Your task to perform on an android device: Open Chrome and go to settings Image 0: 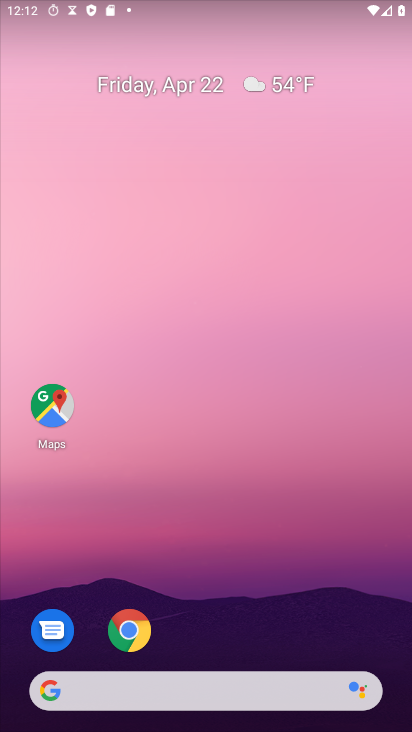
Step 0: click (119, 633)
Your task to perform on an android device: Open Chrome and go to settings Image 1: 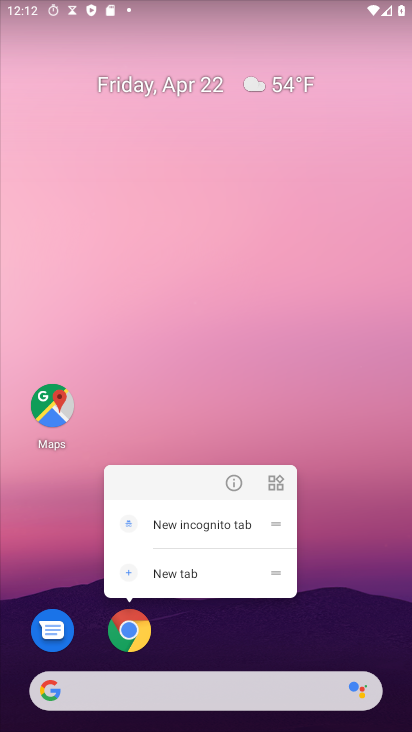
Step 1: click (123, 631)
Your task to perform on an android device: Open Chrome and go to settings Image 2: 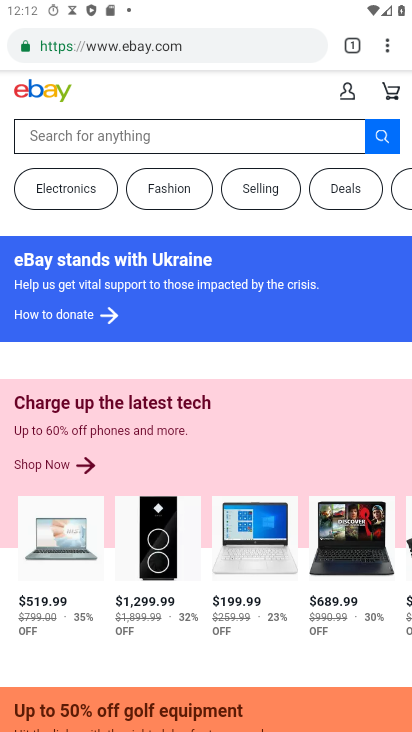
Step 2: click (387, 45)
Your task to perform on an android device: Open Chrome and go to settings Image 3: 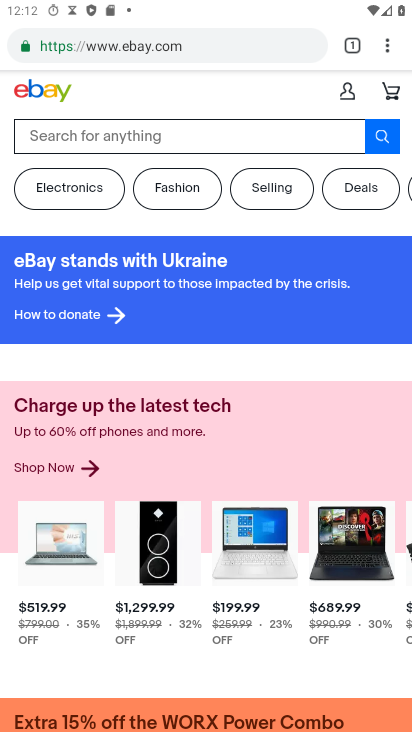
Step 3: click (387, 45)
Your task to perform on an android device: Open Chrome and go to settings Image 4: 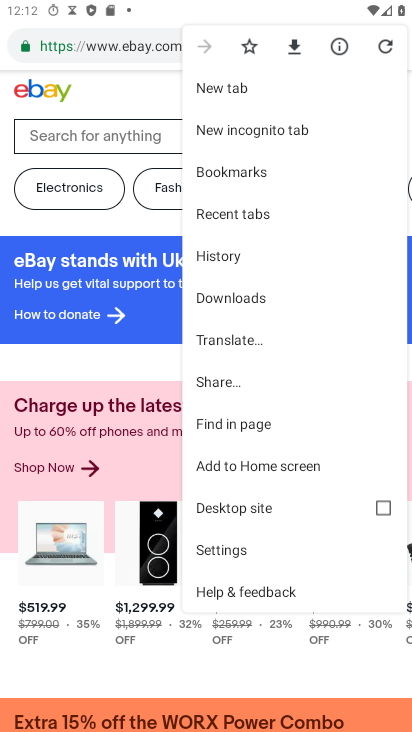
Step 4: click (220, 551)
Your task to perform on an android device: Open Chrome and go to settings Image 5: 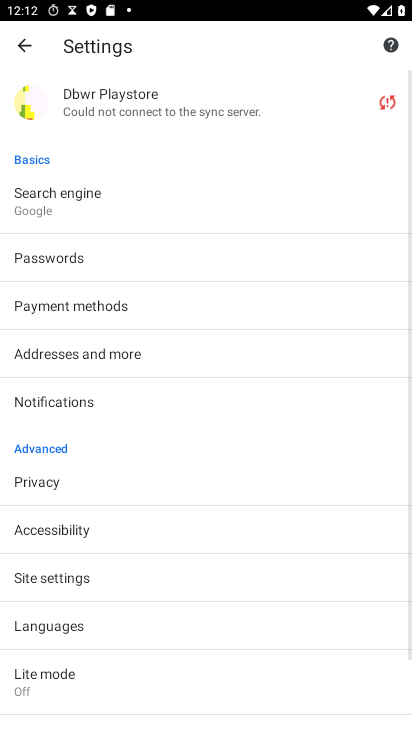
Step 5: task complete